Your task to perform on an android device: Go to accessibility settings Image 0: 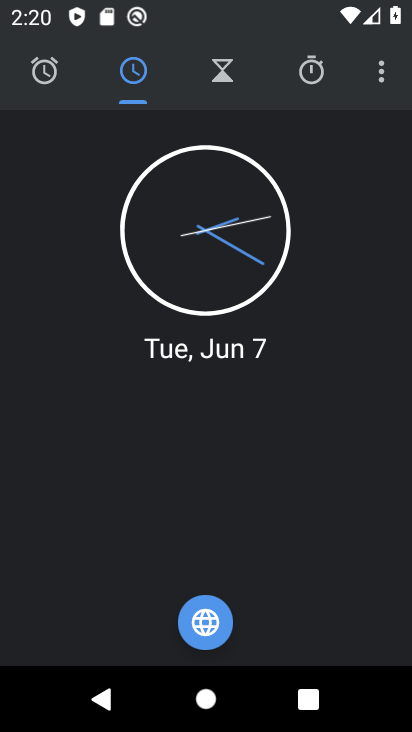
Step 0: press home button
Your task to perform on an android device: Go to accessibility settings Image 1: 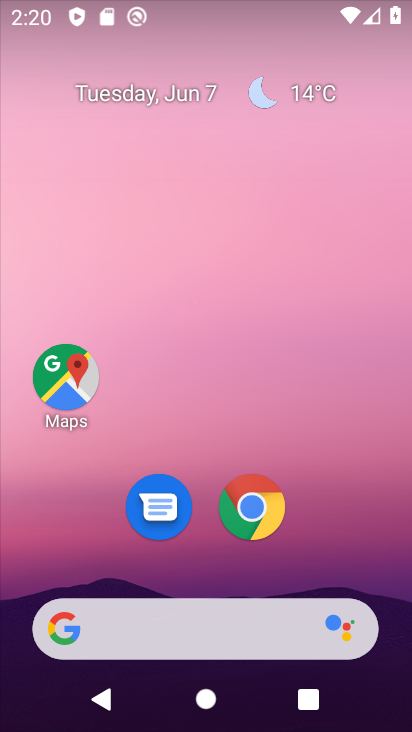
Step 1: drag from (371, 491) to (269, 91)
Your task to perform on an android device: Go to accessibility settings Image 2: 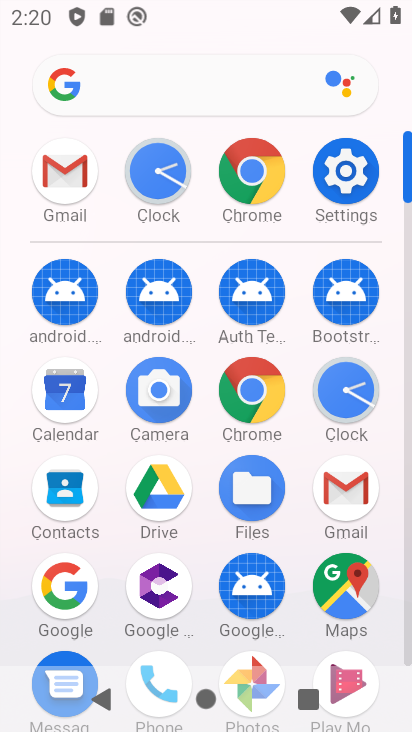
Step 2: click (351, 165)
Your task to perform on an android device: Go to accessibility settings Image 3: 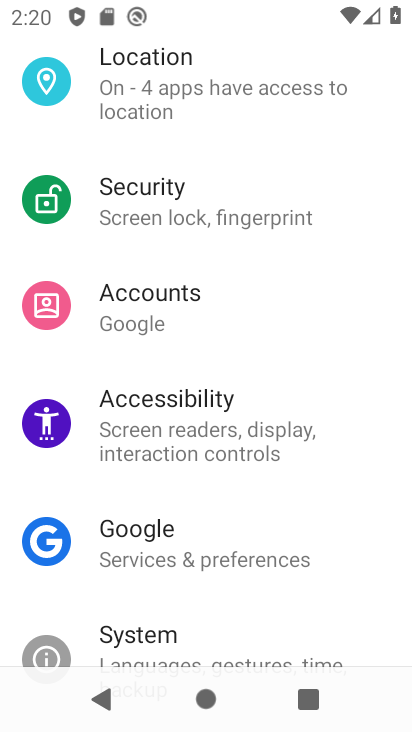
Step 3: drag from (222, 530) to (264, 229)
Your task to perform on an android device: Go to accessibility settings Image 4: 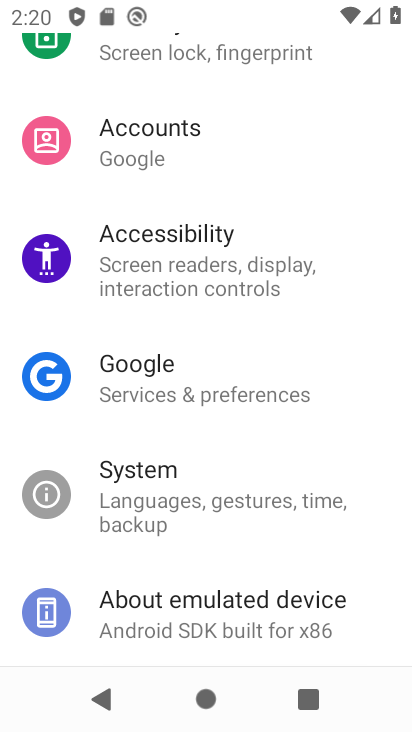
Step 4: click (213, 239)
Your task to perform on an android device: Go to accessibility settings Image 5: 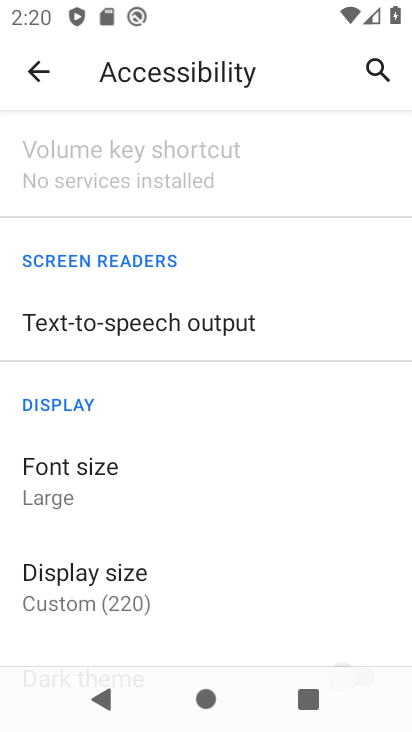
Step 5: task complete